Your task to perform on an android device: turn off data saver in the chrome app Image 0: 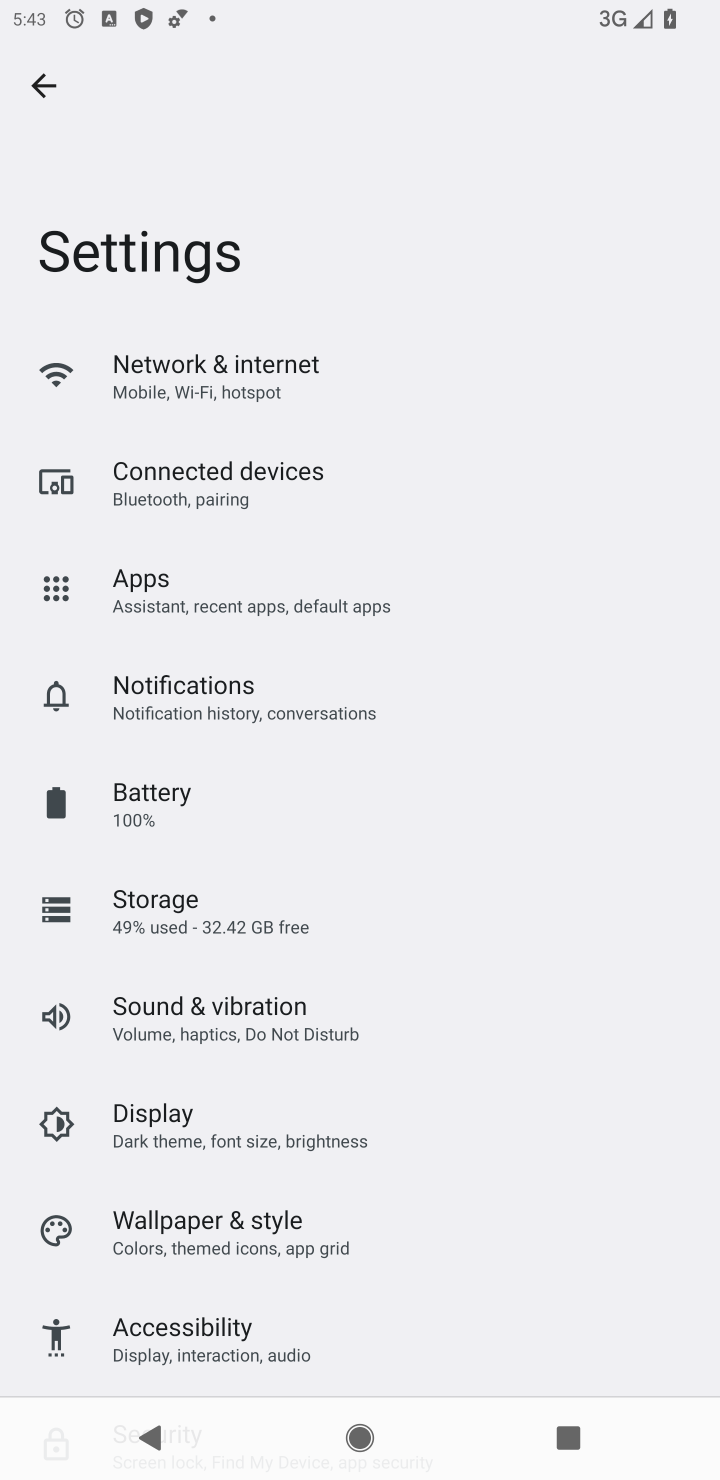
Step 0: press home button
Your task to perform on an android device: turn off data saver in the chrome app Image 1: 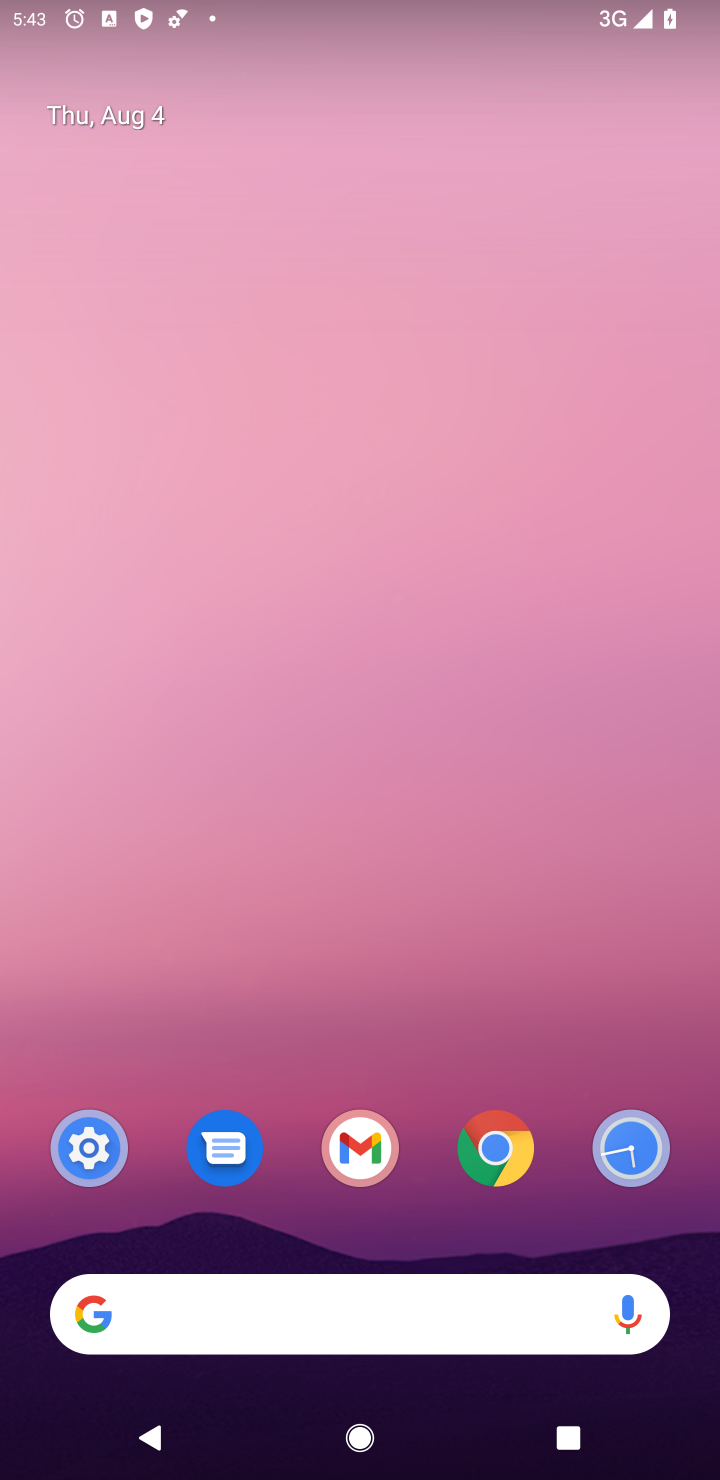
Step 1: click (500, 1157)
Your task to perform on an android device: turn off data saver in the chrome app Image 2: 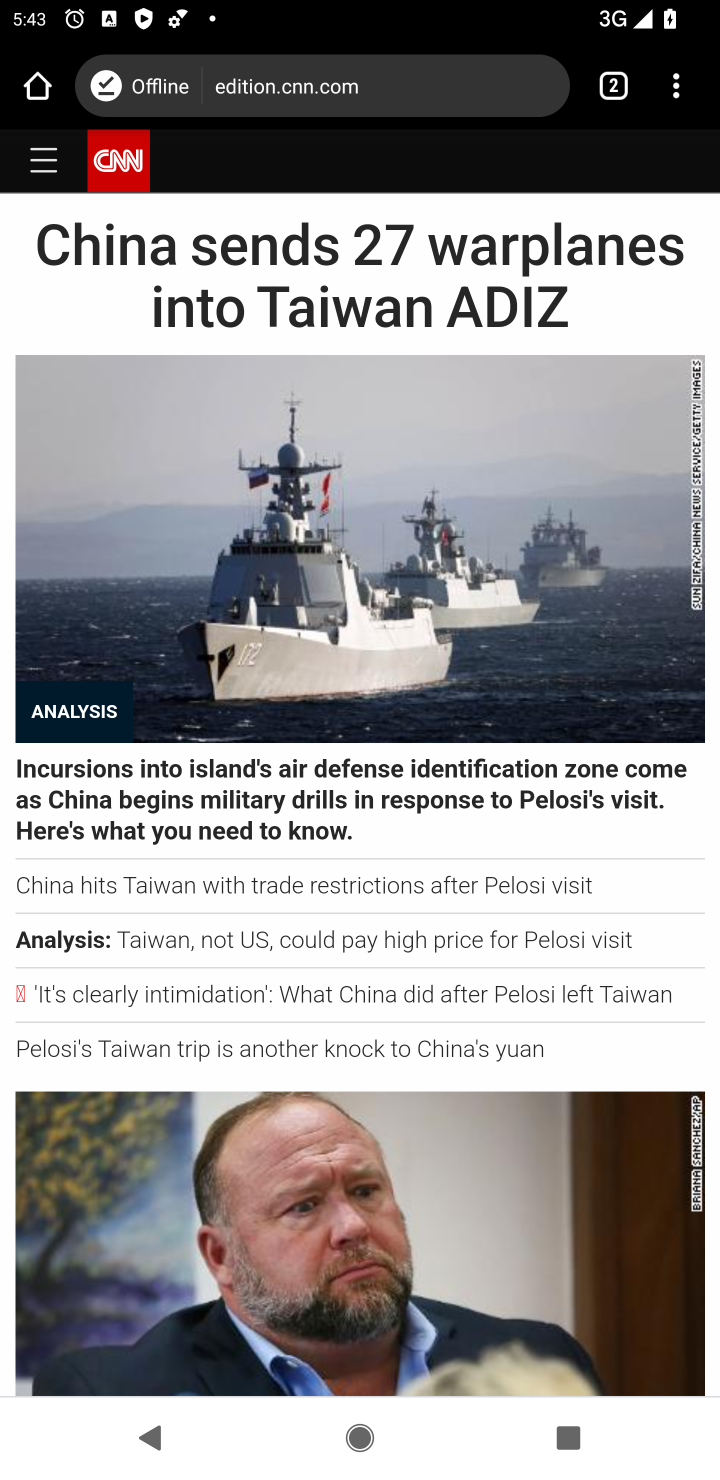
Step 2: click (668, 92)
Your task to perform on an android device: turn off data saver in the chrome app Image 3: 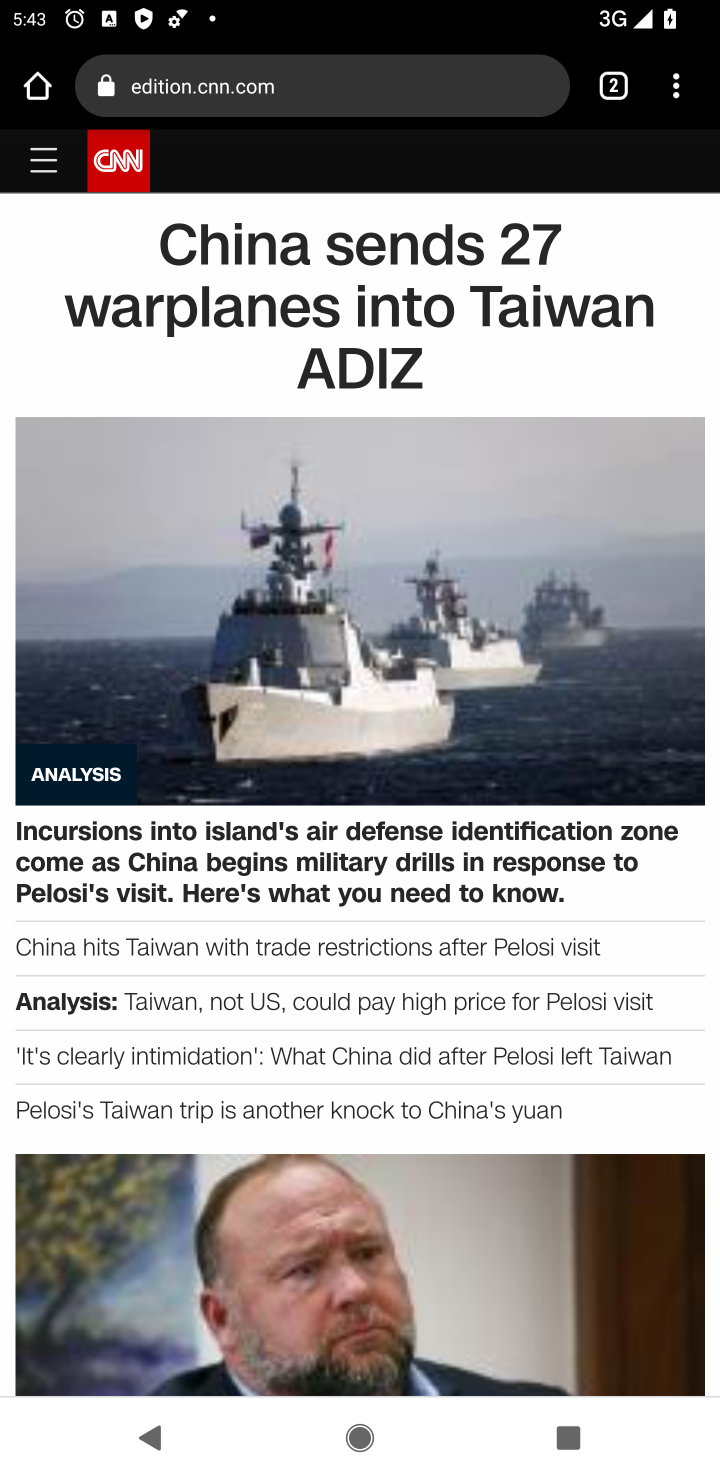
Step 3: click (671, 100)
Your task to perform on an android device: turn off data saver in the chrome app Image 4: 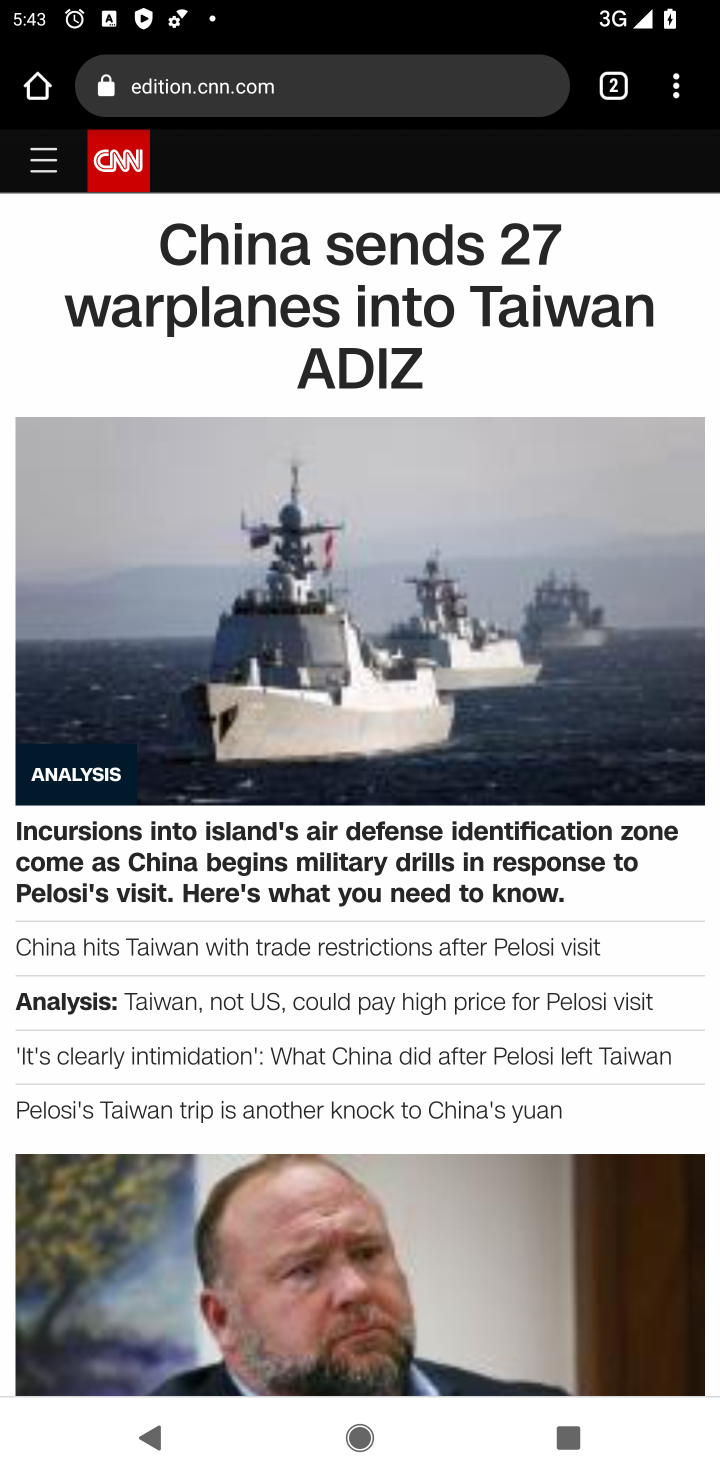
Step 4: click (671, 100)
Your task to perform on an android device: turn off data saver in the chrome app Image 5: 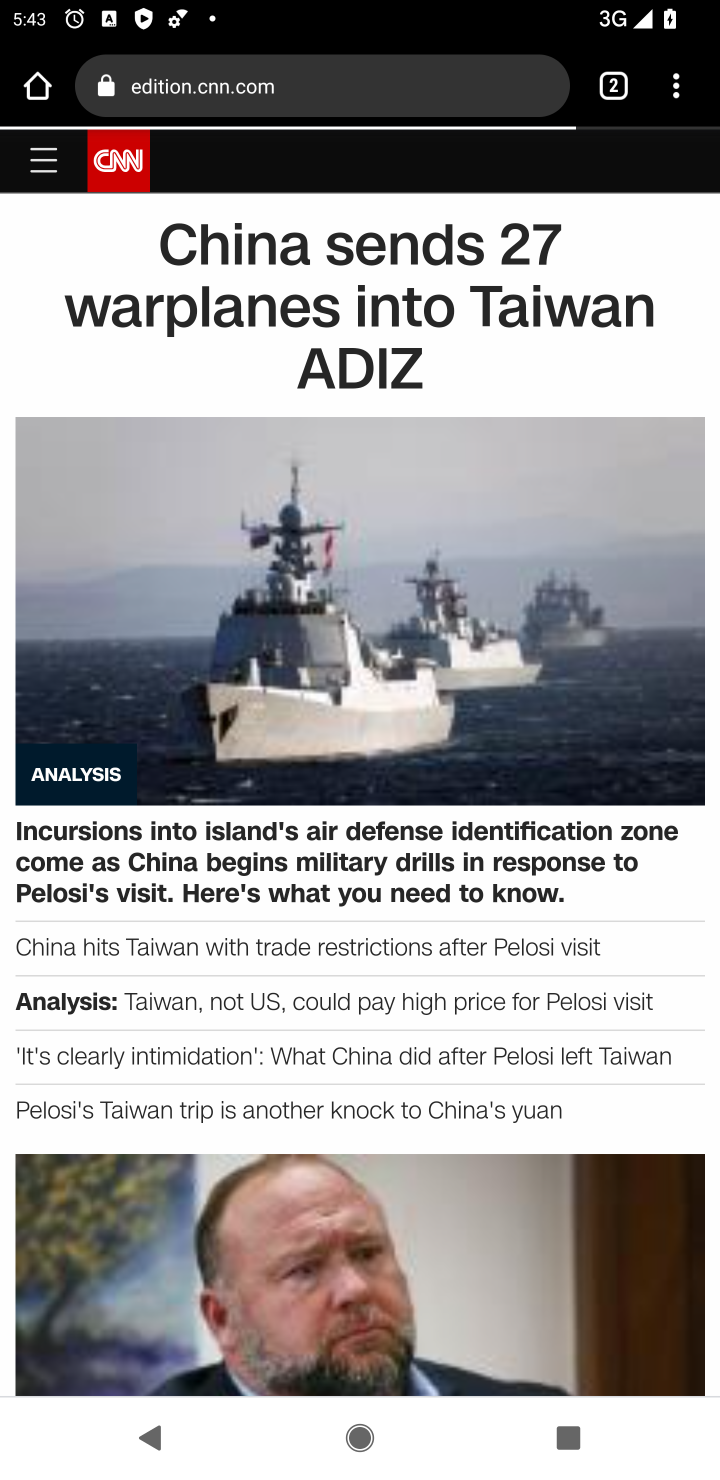
Step 5: click (679, 91)
Your task to perform on an android device: turn off data saver in the chrome app Image 6: 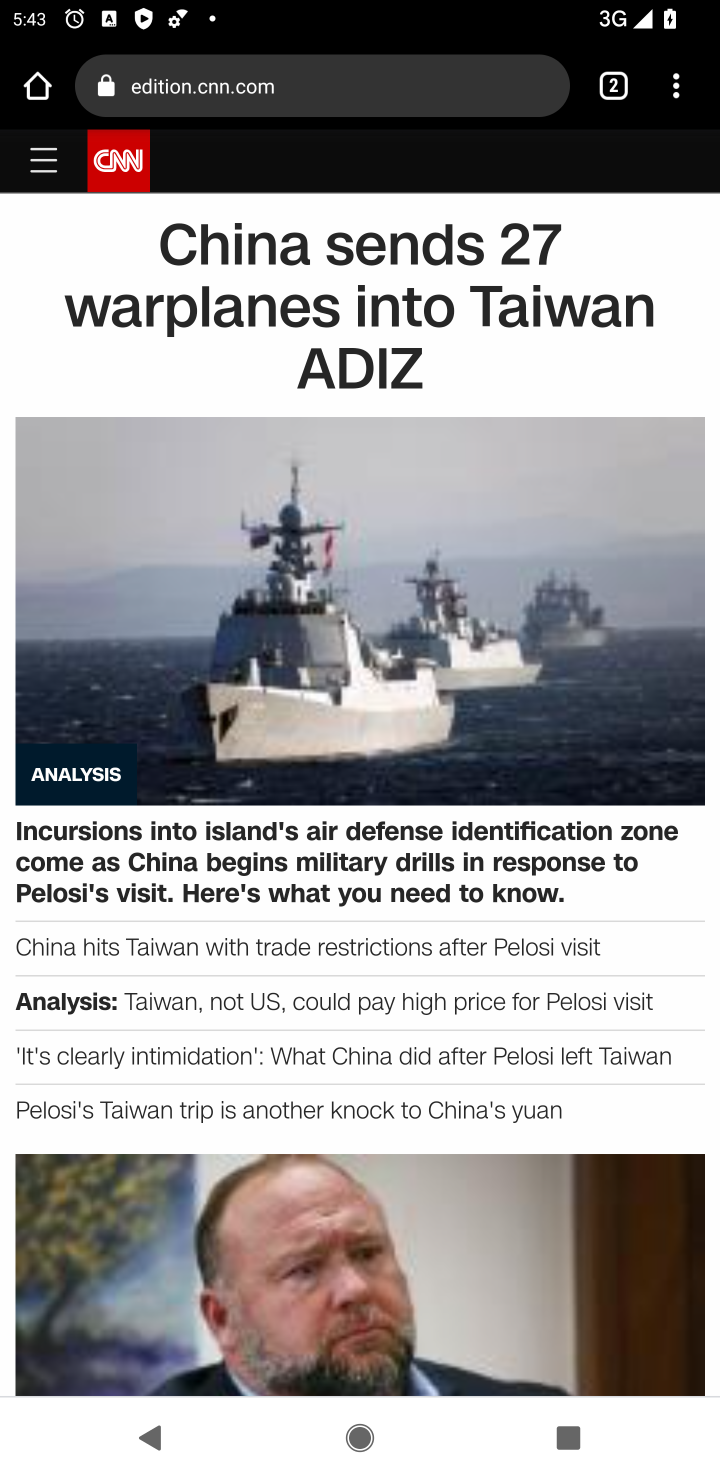
Step 6: click (666, 86)
Your task to perform on an android device: turn off data saver in the chrome app Image 7: 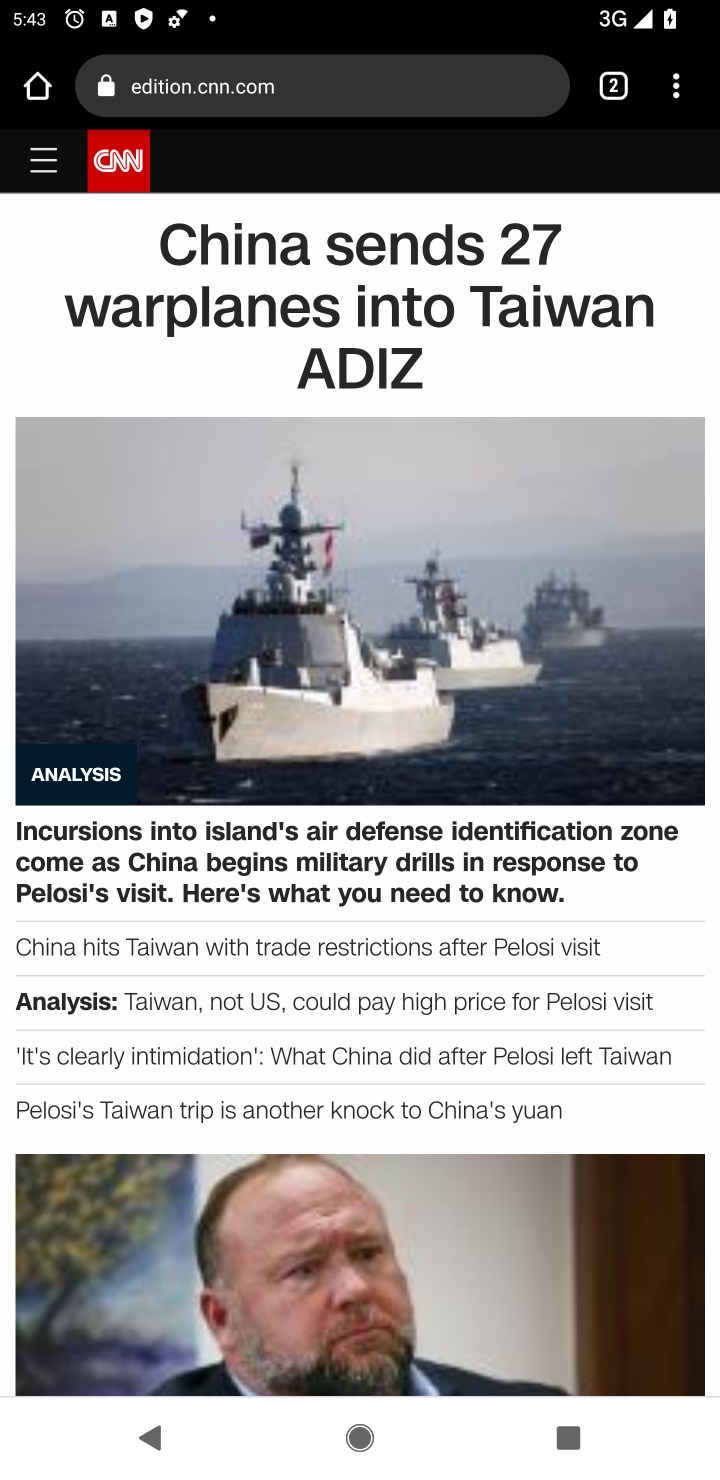
Step 7: click (672, 94)
Your task to perform on an android device: turn off data saver in the chrome app Image 8: 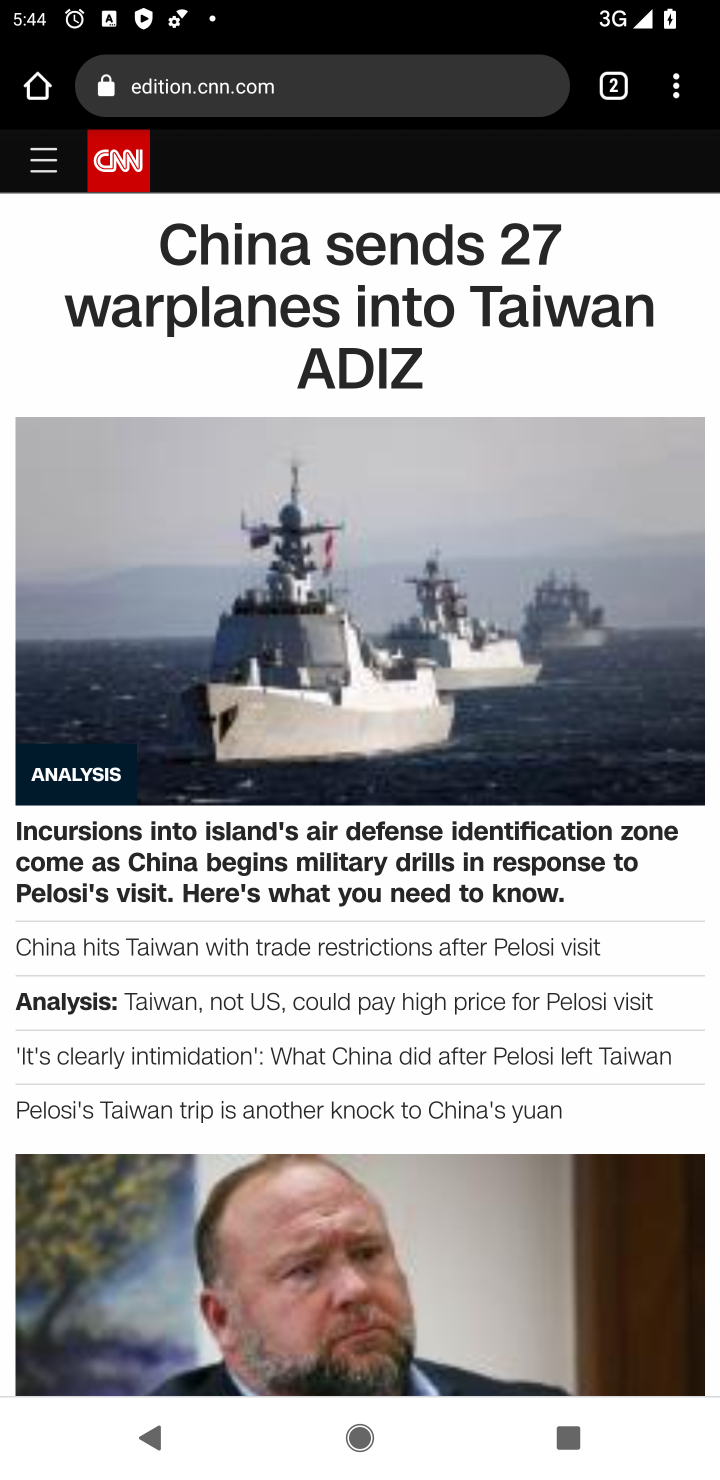
Step 8: click (672, 94)
Your task to perform on an android device: turn off data saver in the chrome app Image 9: 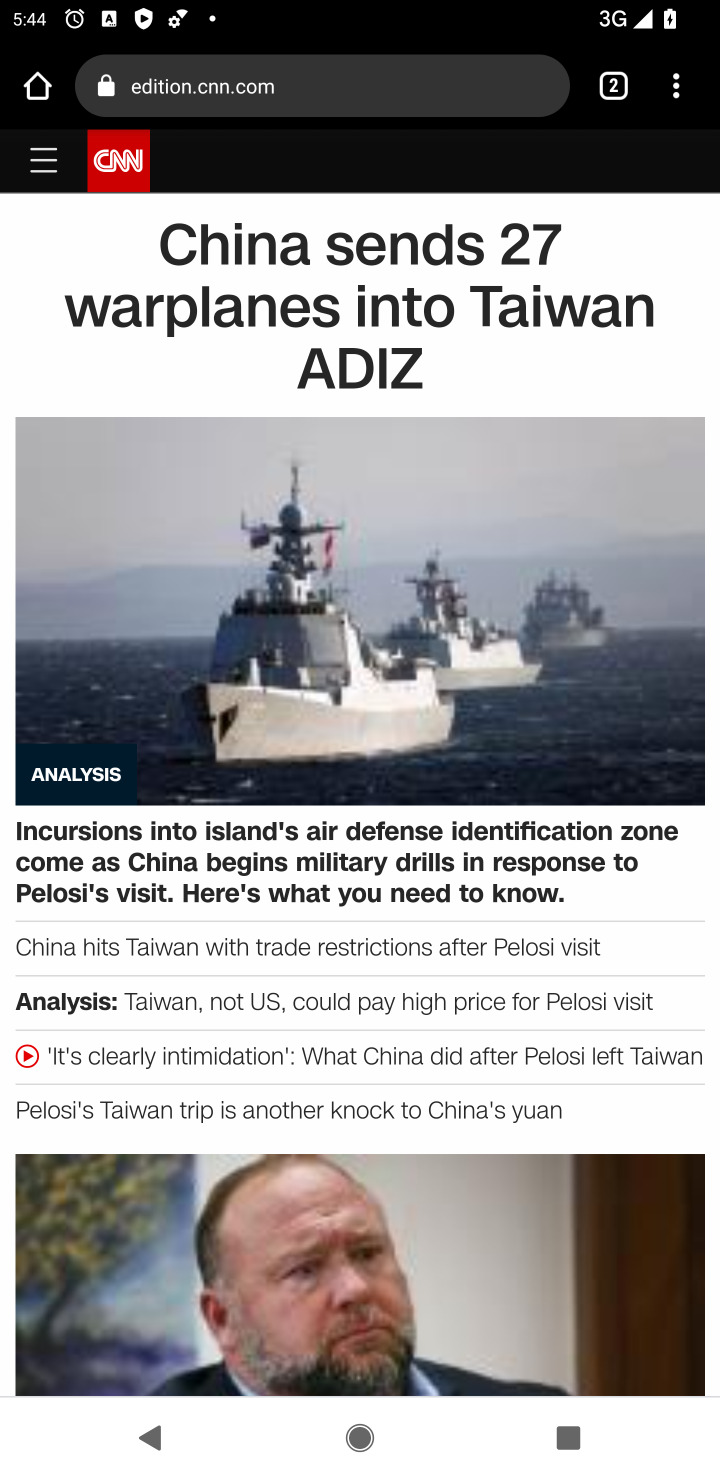
Step 9: click (674, 101)
Your task to perform on an android device: turn off data saver in the chrome app Image 10: 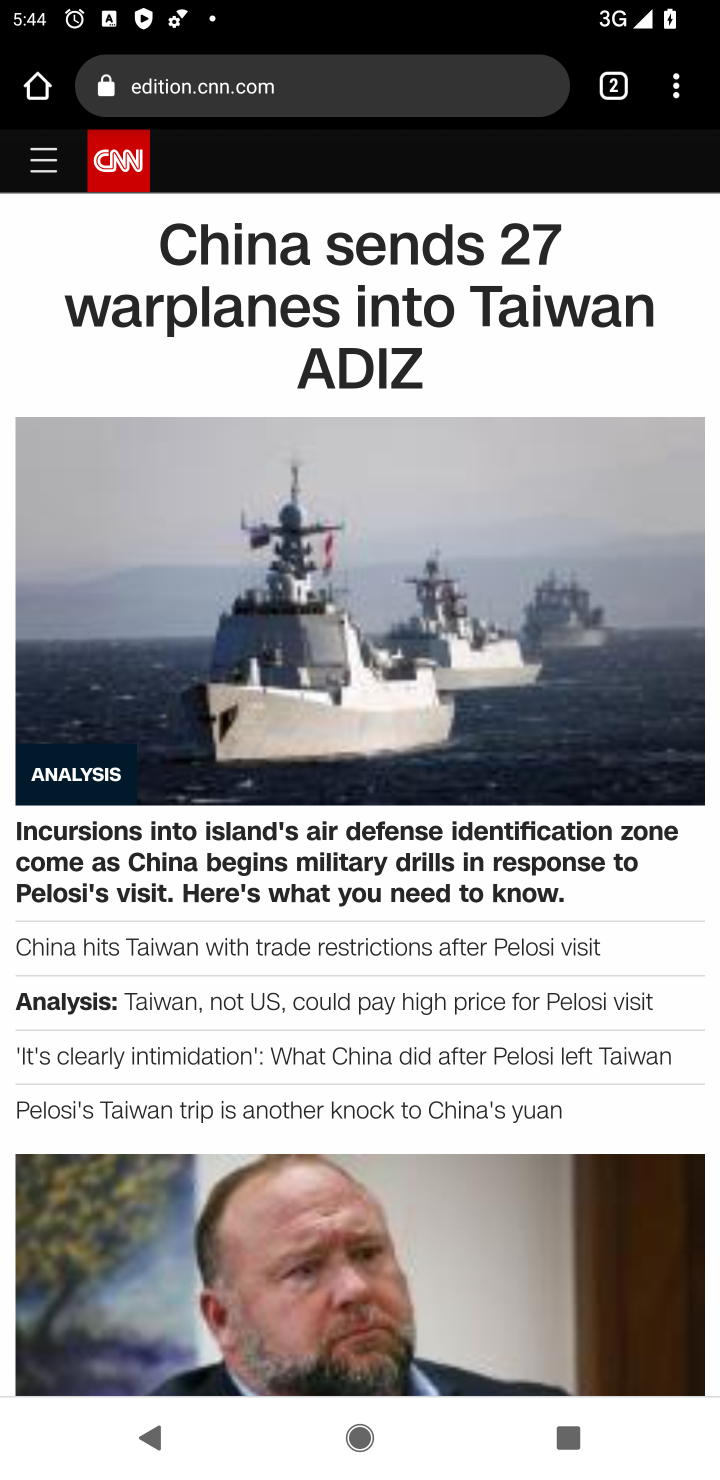
Step 10: task complete